Your task to perform on an android device: open chrome privacy settings Image 0: 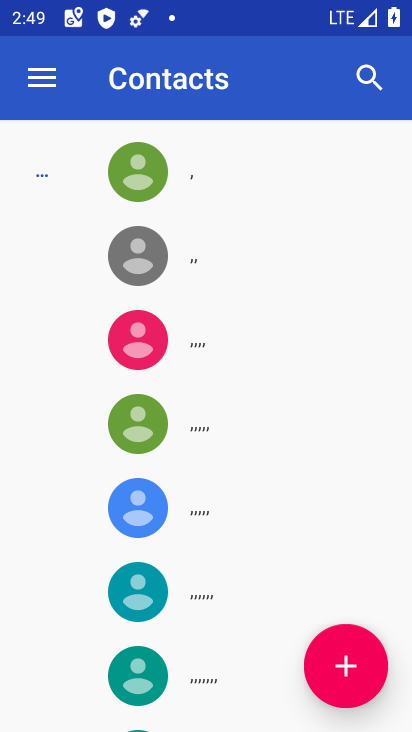
Step 0: press back button
Your task to perform on an android device: open chrome privacy settings Image 1: 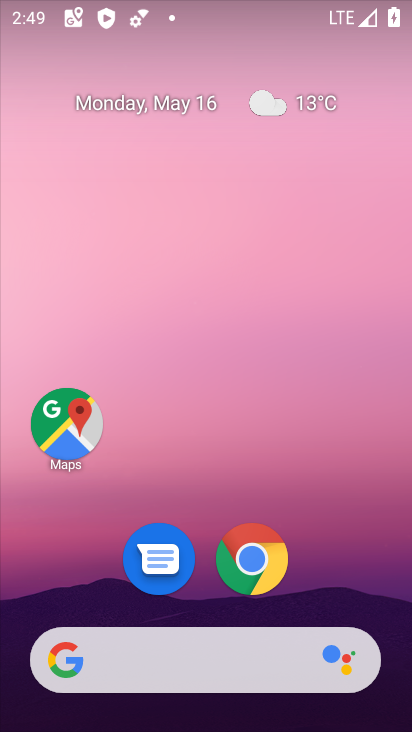
Step 1: click (258, 562)
Your task to perform on an android device: open chrome privacy settings Image 2: 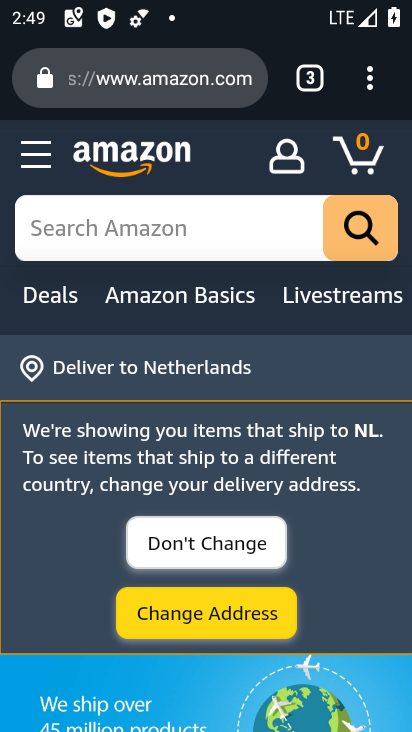
Step 2: drag from (364, 78) to (76, 622)
Your task to perform on an android device: open chrome privacy settings Image 3: 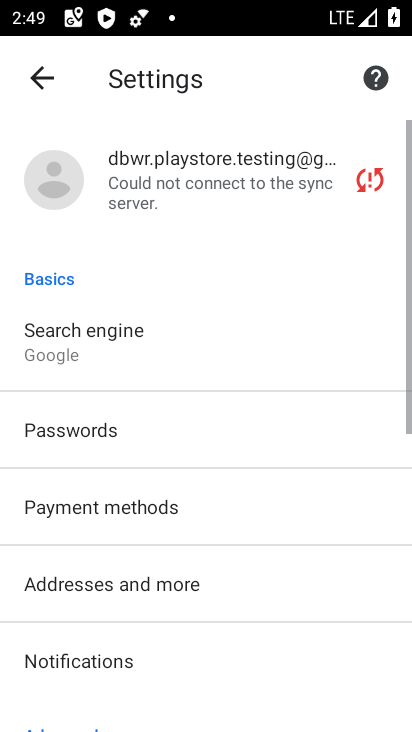
Step 3: drag from (216, 638) to (325, 59)
Your task to perform on an android device: open chrome privacy settings Image 4: 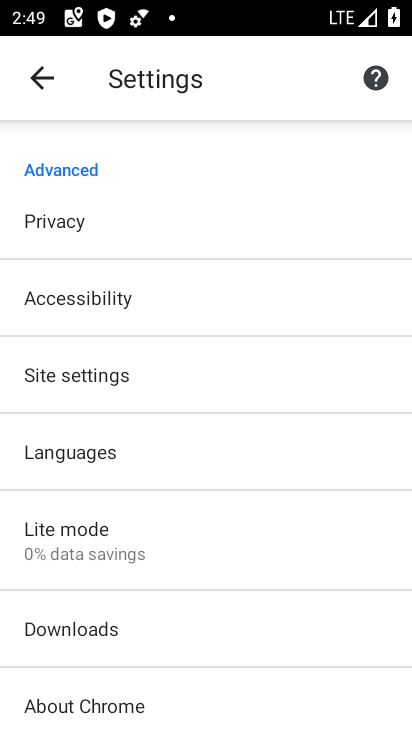
Step 4: click (49, 228)
Your task to perform on an android device: open chrome privacy settings Image 5: 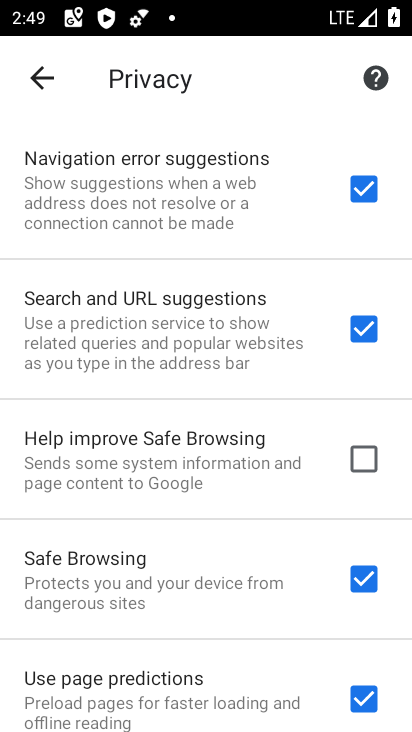
Step 5: task complete